Your task to perform on an android device: turn on improve location accuracy Image 0: 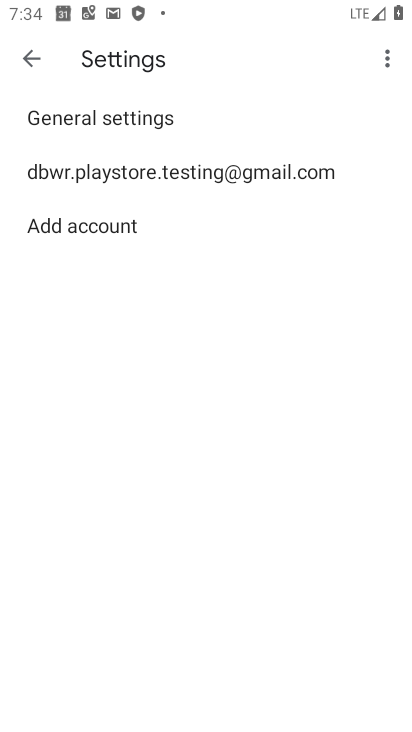
Step 0: press home button
Your task to perform on an android device: turn on improve location accuracy Image 1: 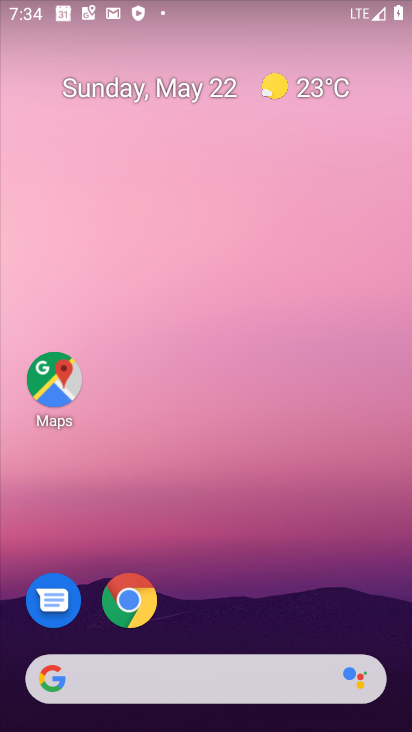
Step 1: drag from (349, 603) to (175, 5)
Your task to perform on an android device: turn on improve location accuracy Image 2: 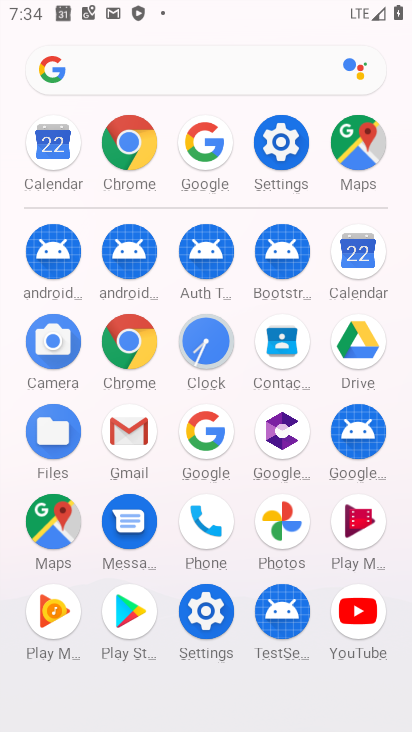
Step 2: click (200, 637)
Your task to perform on an android device: turn on improve location accuracy Image 3: 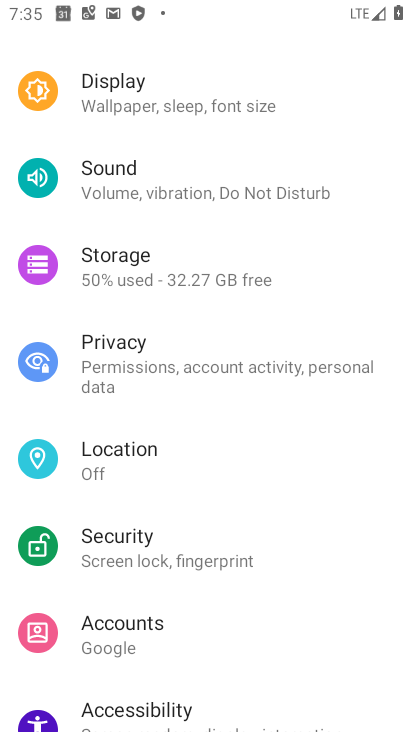
Step 3: click (147, 438)
Your task to perform on an android device: turn on improve location accuracy Image 4: 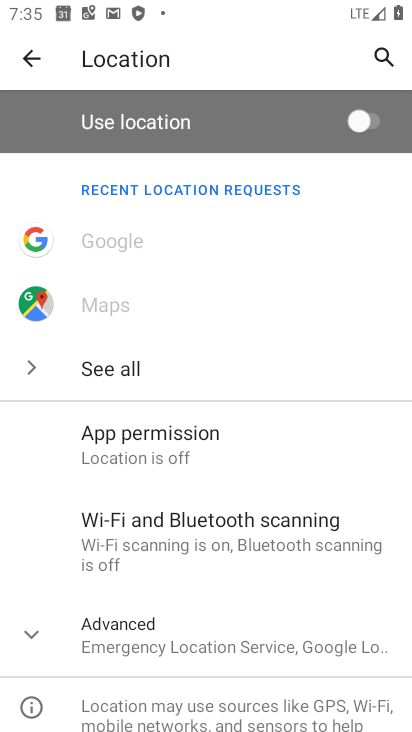
Step 4: click (170, 619)
Your task to perform on an android device: turn on improve location accuracy Image 5: 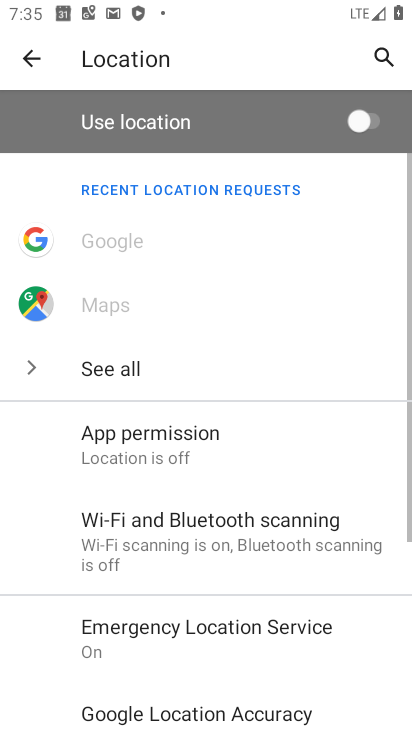
Step 5: drag from (192, 689) to (210, 371)
Your task to perform on an android device: turn on improve location accuracy Image 6: 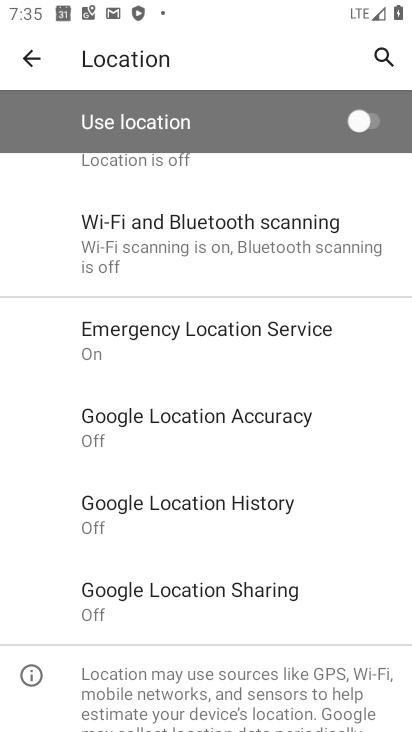
Step 6: click (263, 410)
Your task to perform on an android device: turn on improve location accuracy Image 7: 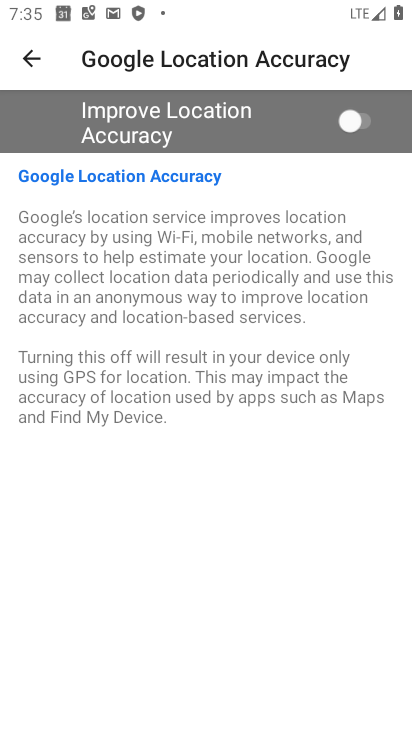
Step 7: click (349, 132)
Your task to perform on an android device: turn on improve location accuracy Image 8: 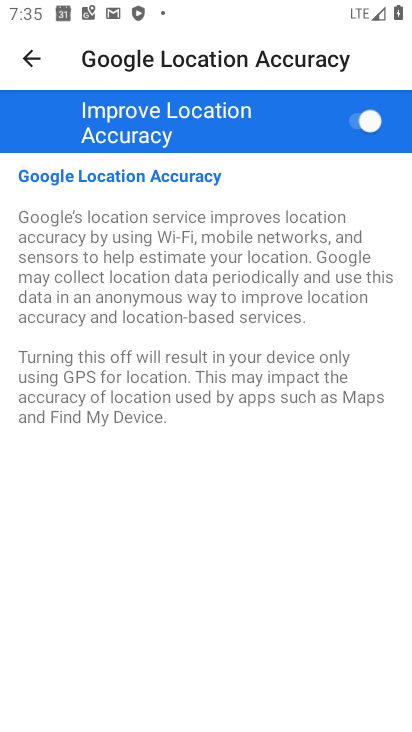
Step 8: task complete